Your task to perform on an android device: open a new tab in the chrome app Image 0: 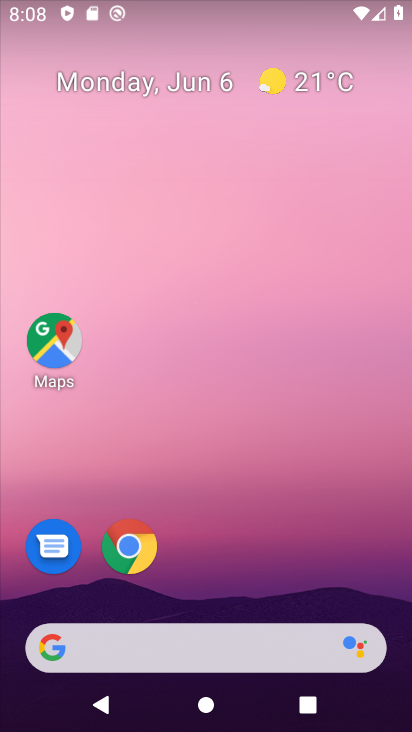
Step 0: click (122, 525)
Your task to perform on an android device: open a new tab in the chrome app Image 1: 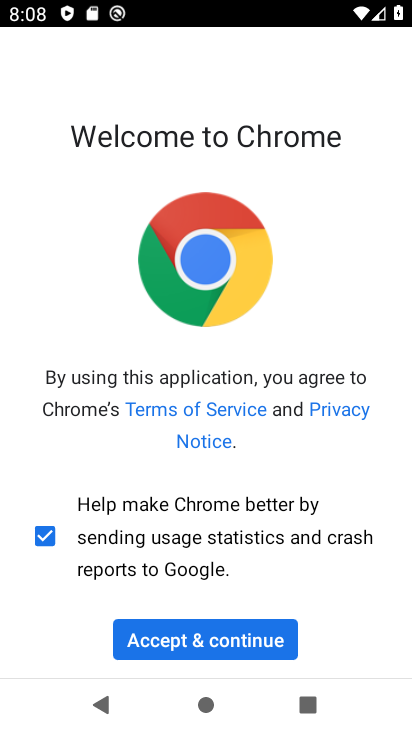
Step 1: click (179, 655)
Your task to perform on an android device: open a new tab in the chrome app Image 2: 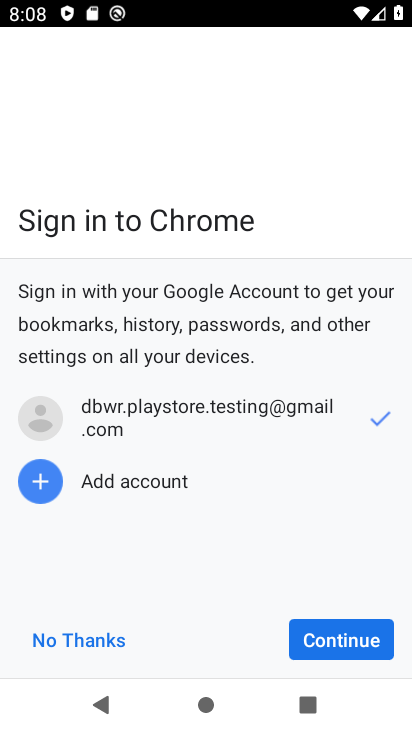
Step 2: click (304, 644)
Your task to perform on an android device: open a new tab in the chrome app Image 3: 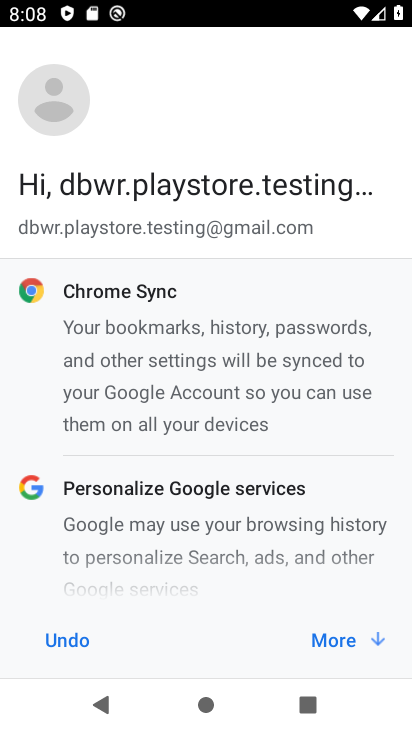
Step 3: click (344, 639)
Your task to perform on an android device: open a new tab in the chrome app Image 4: 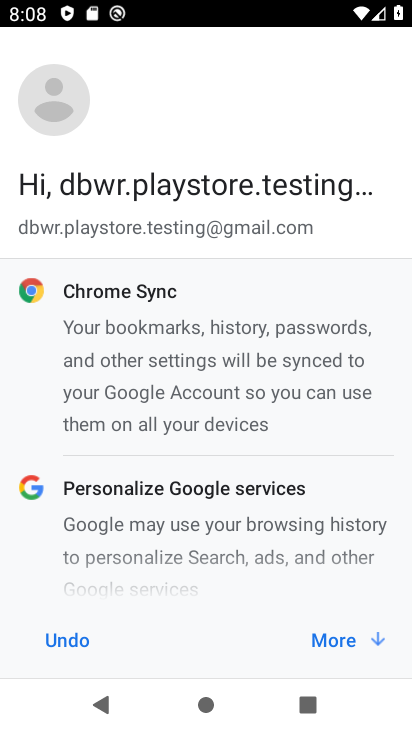
Step 4: click (344, 639)
Your task to perform on an android device: open a new tab in the chrome app Image 5: 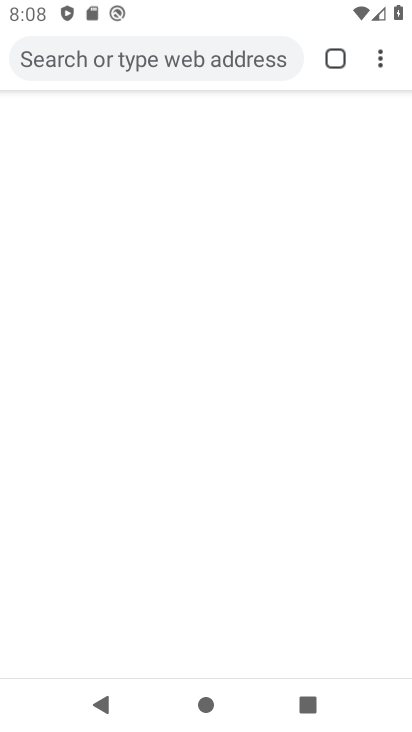
Step 5: click (344, 639)
Your task to perform on an android device: open a new tab in the chrome app Image 6: 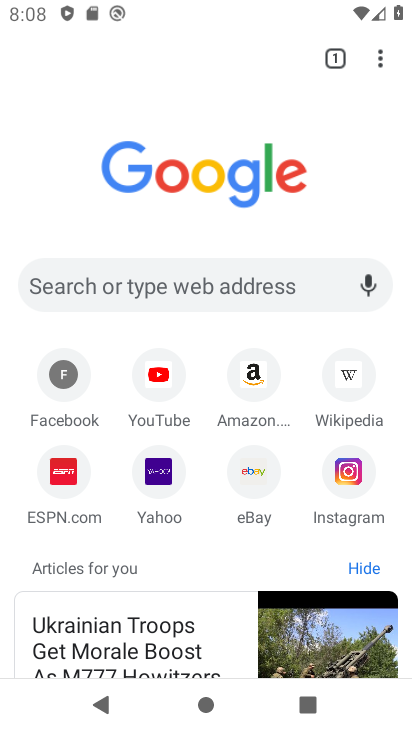
Step 6: click (320, 56)
Your task to perform on an android device: open a new tab in the chrome app Image 7: 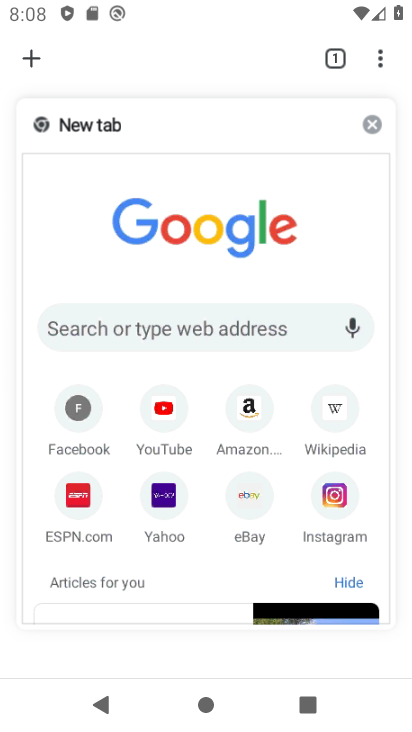
Step 7: click (43, 70)
Your task to perform on an android device: open a new tab in the chrome app Image 8: 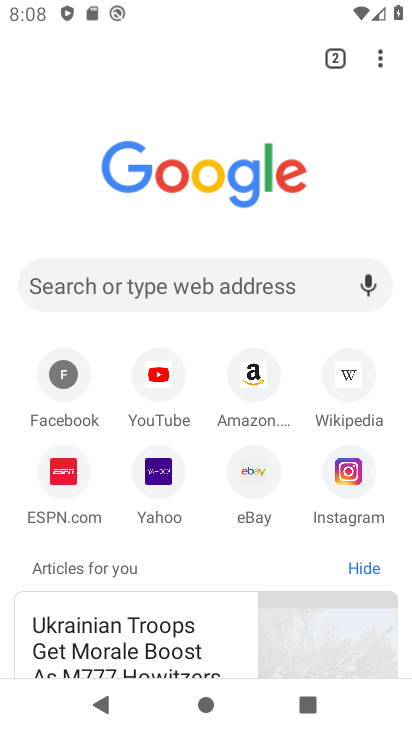
Step 8: task complete